Your task to perform on an android device: Open Yahoo.com Image 0: 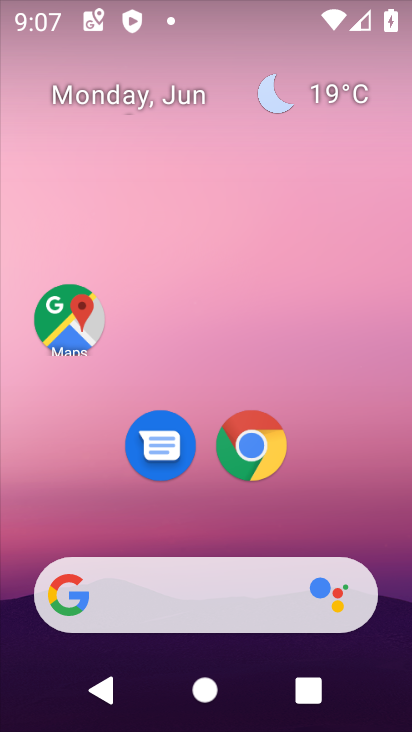
Step 0: press home button
Your task to perform on an android device: Open Yahoo.com Image 1: 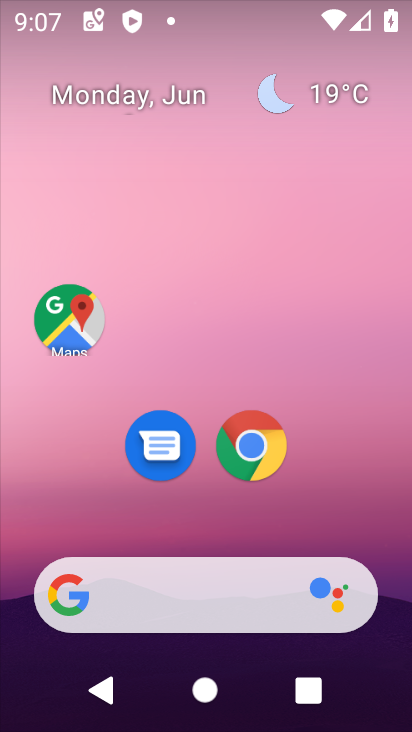
Step 1: click (250, 440)
Your task to perform on an android device: Open Yahoo.com Image 2: 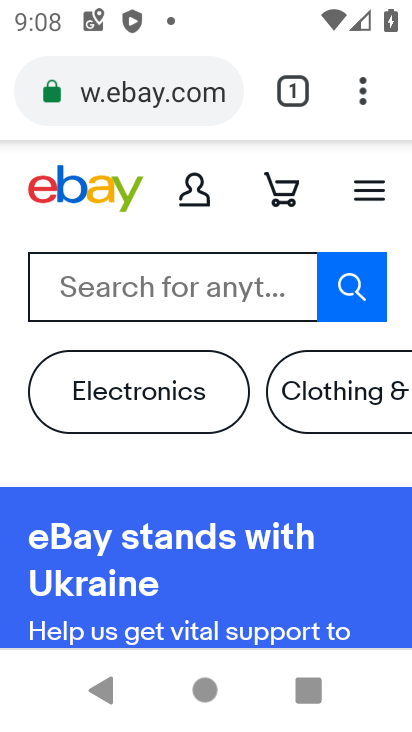
Step 2: task complete